Your task to perform on an android device: open app "Venmo" (install if not already installed) Image 0: 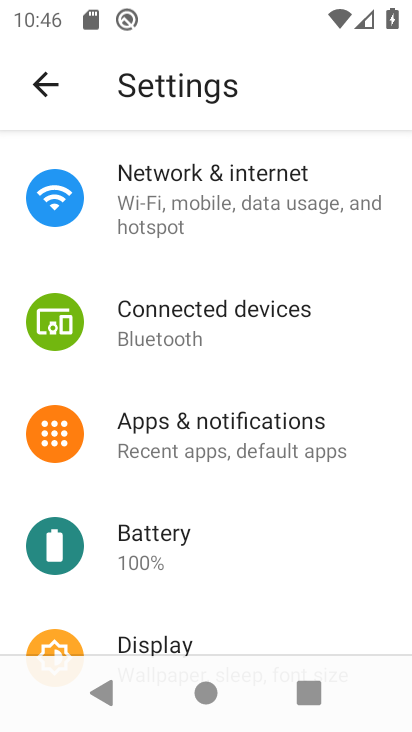
Step 0: press home button
Your task to perform on an android device: open app "Venmo" (install if not already installed) Image 1: 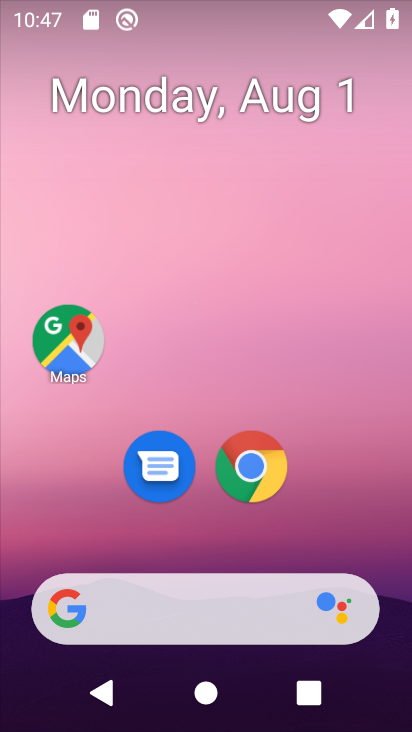
Step 1: drag from (233, 697) to (233, 87)
Your task to perform on an android device: open app "Venmo" (install if not already installed) Image 2: 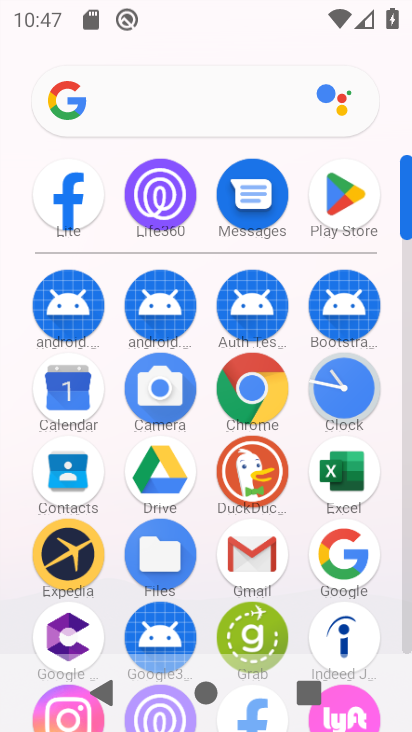
Step 2: click (341, 196)
Your task to perform on an android device: open app "Venmo" (install if not already installed) Image 3: 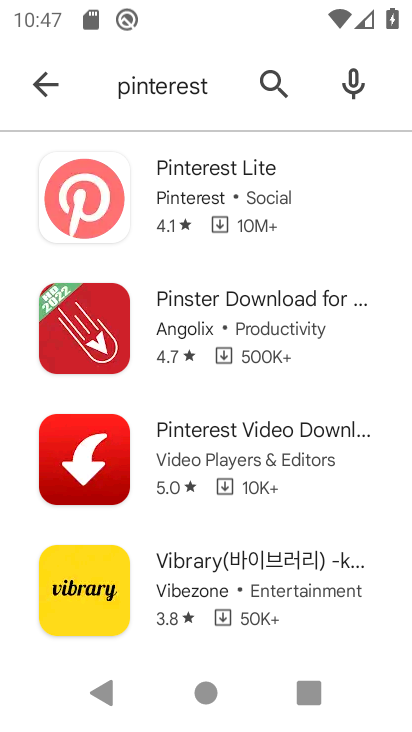
Step 3: click (271, 77)
Your task to perform on an android device: open app "Venmo" (install if not already installed) Image 4: 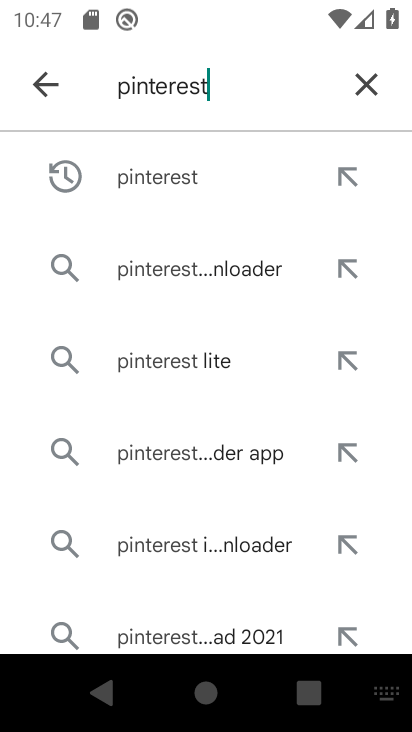
Step 4: click (361, 82)
Your task to perform on an android device: open app "Venmo" (install if not already installed) Image 5: 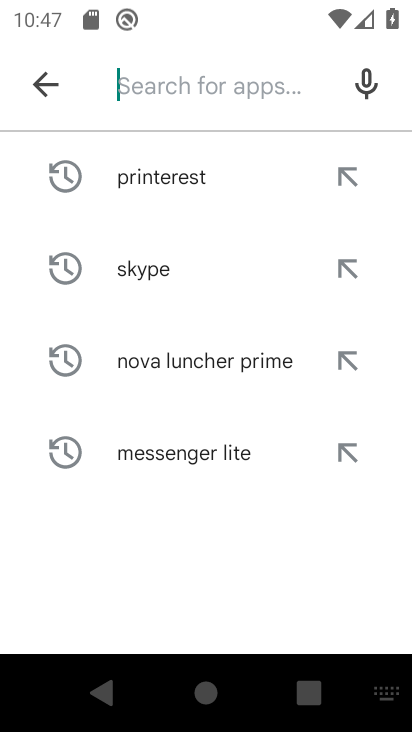
Step 5: type "venmo"
Your task to perform on an android device: open app "Venmo" (install if not already installed) Image 6: 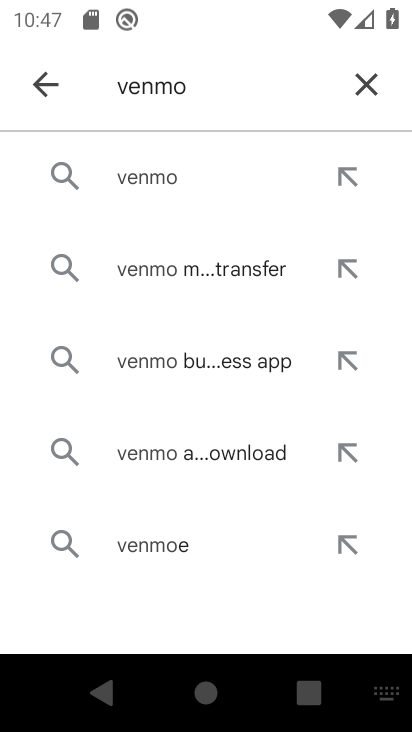
Step 6: click (135, 171)
Your task to perform on an android device: open app "Venmo" (install if not already installed) Image 7: 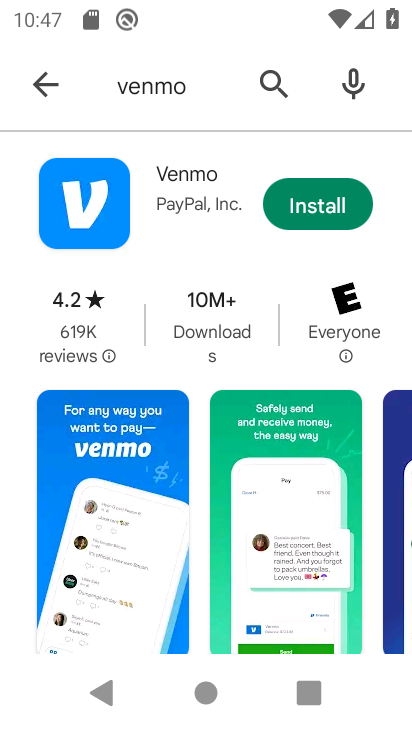
Step 7: click (320, 211)
Your task to perform on an android device: open app "Venmo" (install if not already installed) Image 8: 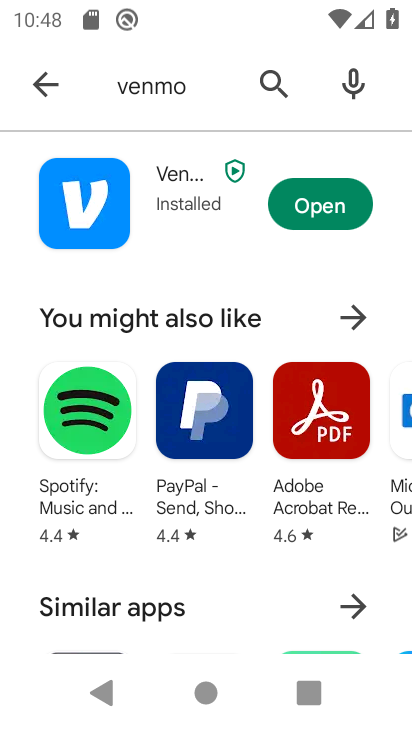
Step 8: click (313, 215)
Your task to perform on an android device: open app "Venmo" (install if not already installed) Image 9: 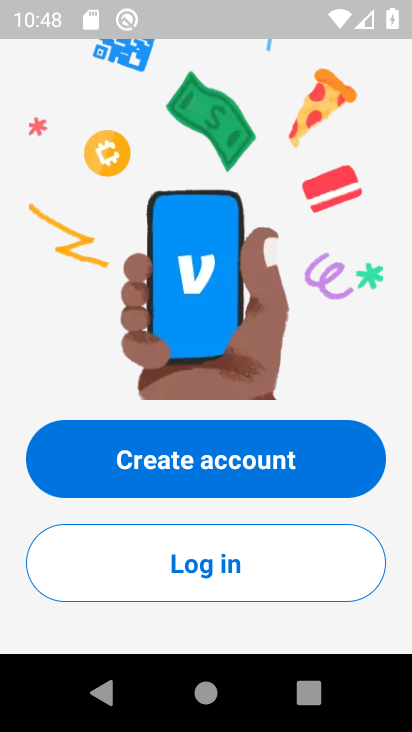
Step 9: task complete